Your task to perform on an android device: change the clock display to digital Image 0: 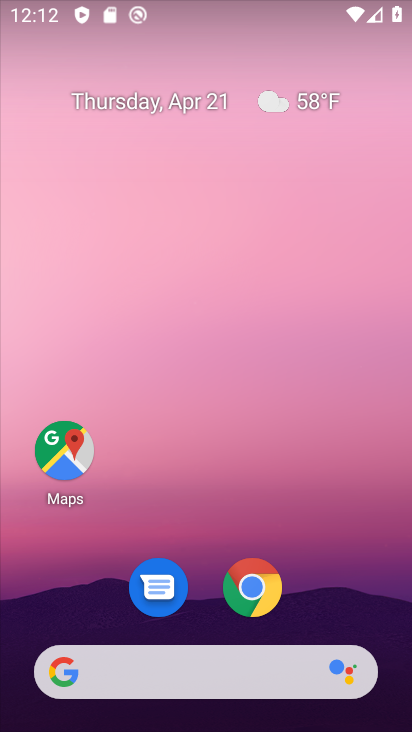
Step 0: drag from (198, 588) to (336, 2)
Your task to perform on an android device: change the clock display to digital Image 1: 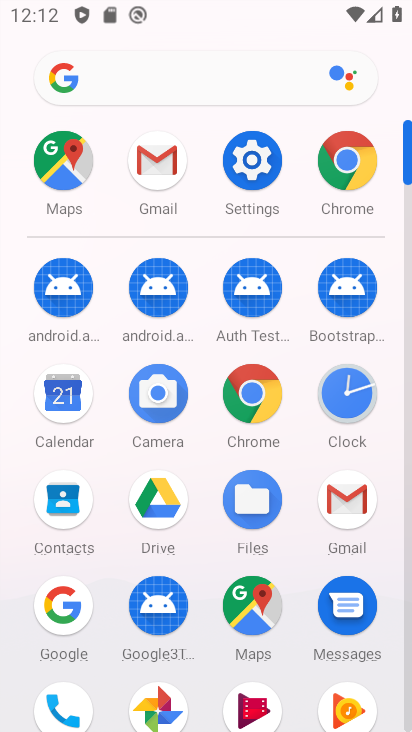
Step 1: click (346, 391)
Your task to perform on an android device: change the clock display to digital Image 2: 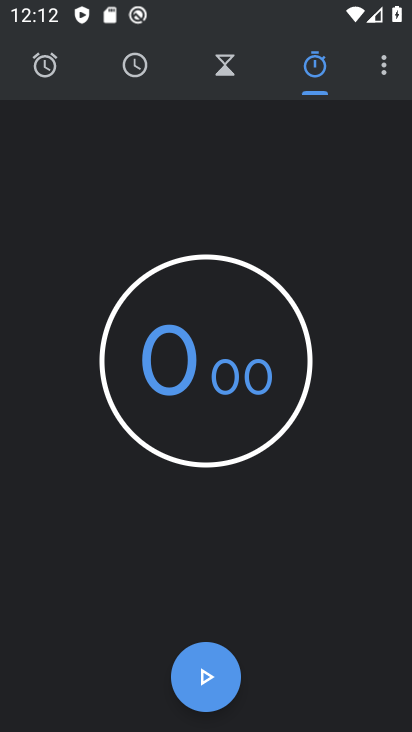
Step 2: click (383, 77)
Your task to perform on an android device: change the clock display to digital Image 3: 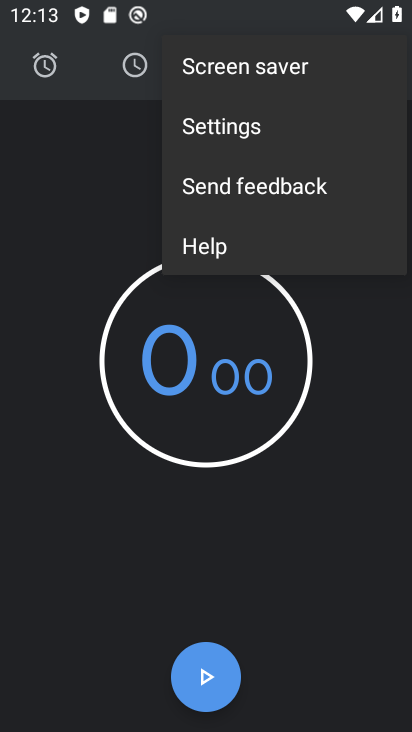
Step 3: click (230, 129)
Your task to perform on an android device: change the clock display to digital Image 4: 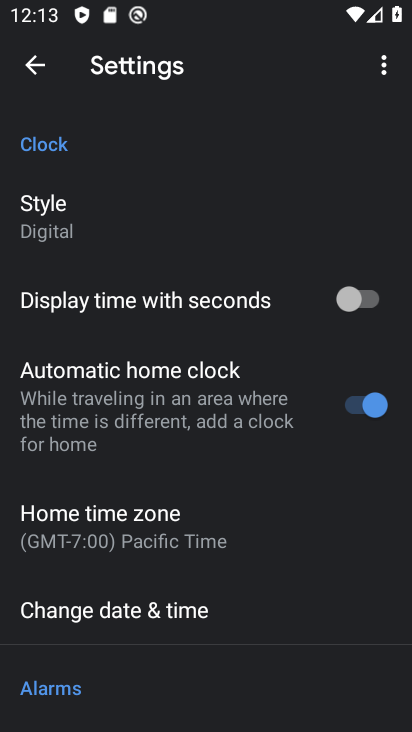
Step 4: task complete